Your task to perform on an android device: Open the web browser Image 0: 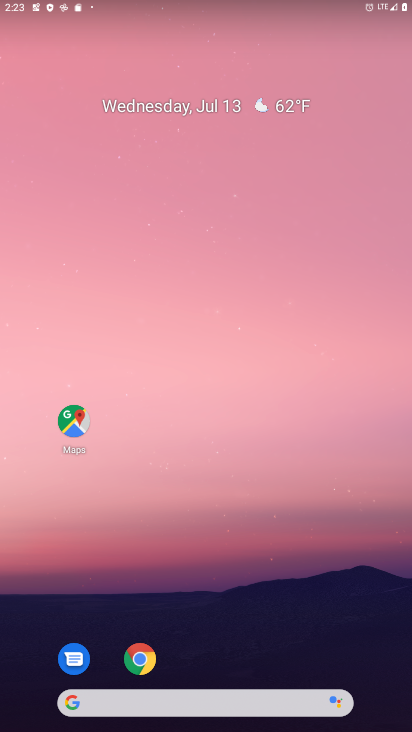
Step 0: click (140, 661)
Your task to perform on an android device: Open the web browser Image 1: 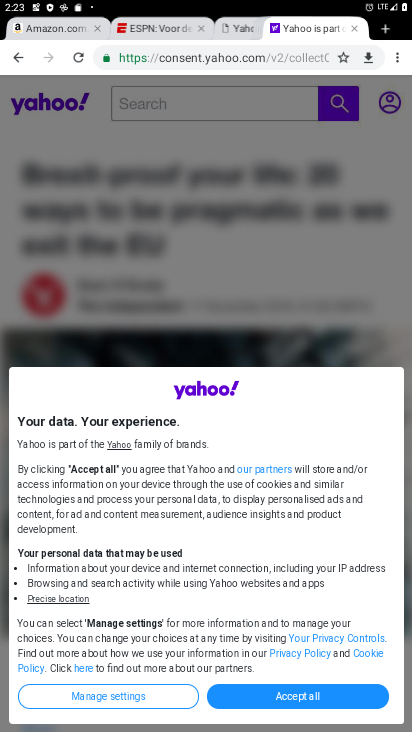
Step 1: task complete